Your task to perform on an android device: turn on improve location accuracy Image 0: 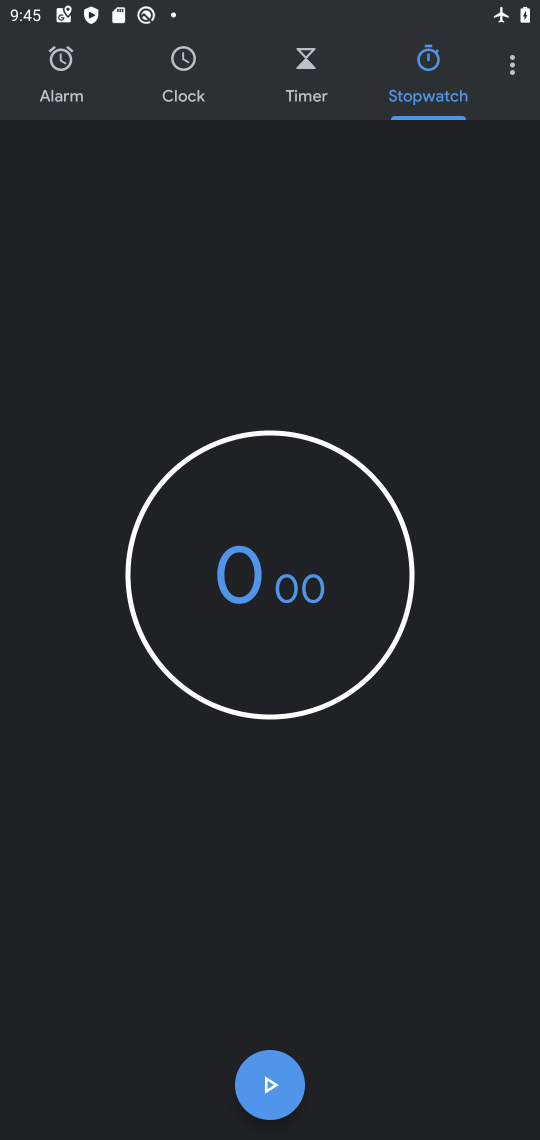
Step 0: click (508, 70)
Your task to perform on an android device: turn on improve location accuracy Image 1: 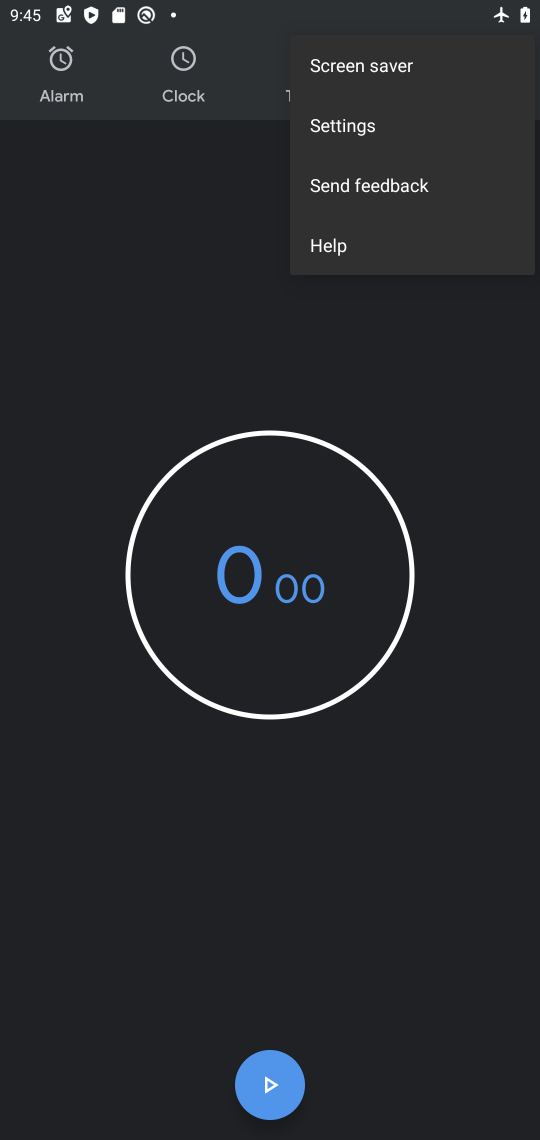
Step 1: press home button
Your task to perform on an android device: turn on improve location accuracy Image 2: 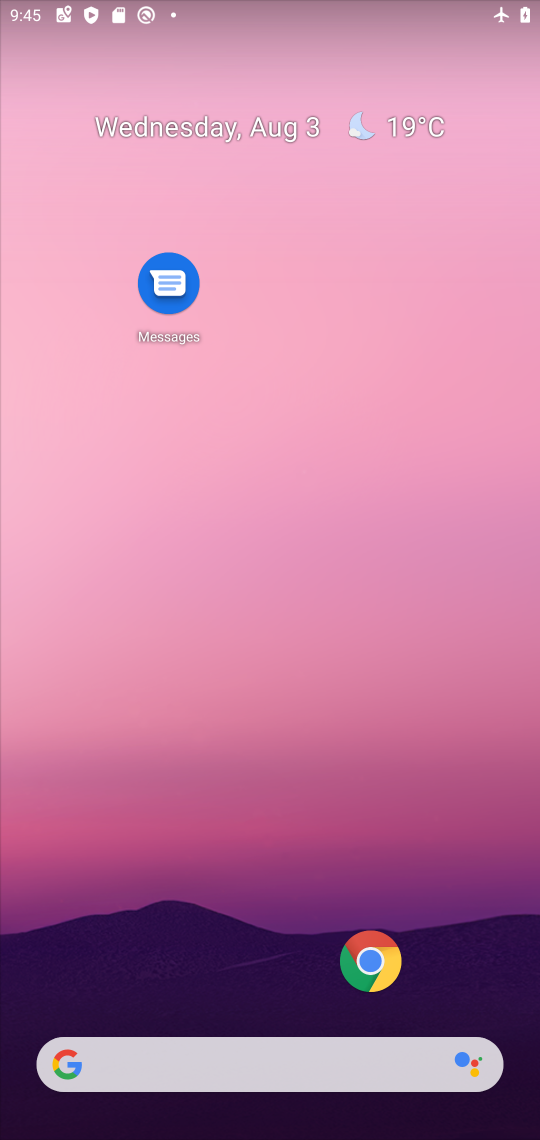
Step 2: drag from (337, 1019) to (207, 81)
Your task to perform on an android device: turn on improve location accuracy Image 3: 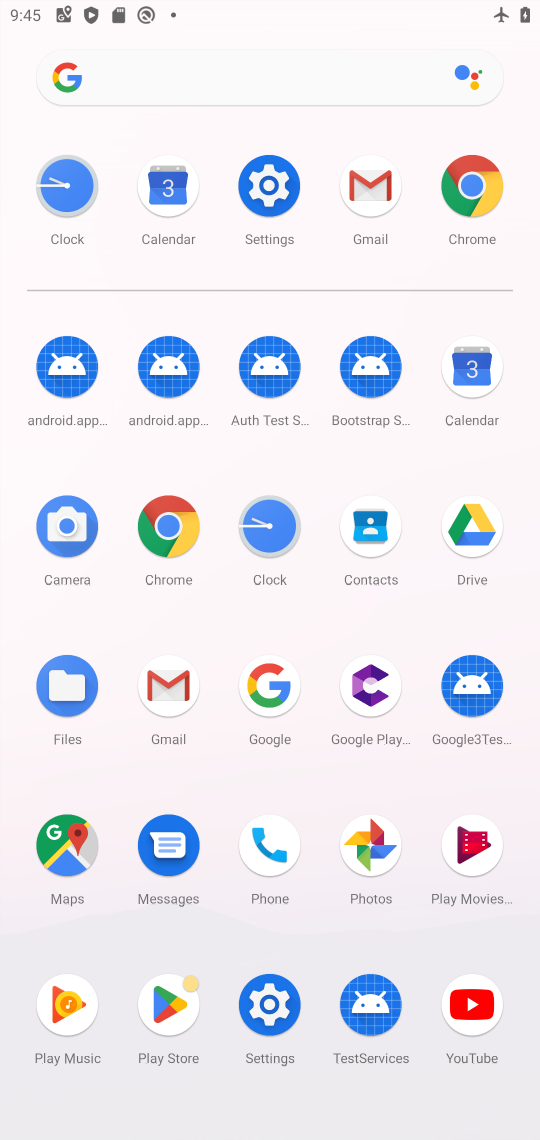
Step 3: click (271, 1023)
Your task to perform on an android device: turn on improve location accuracy Image 4: 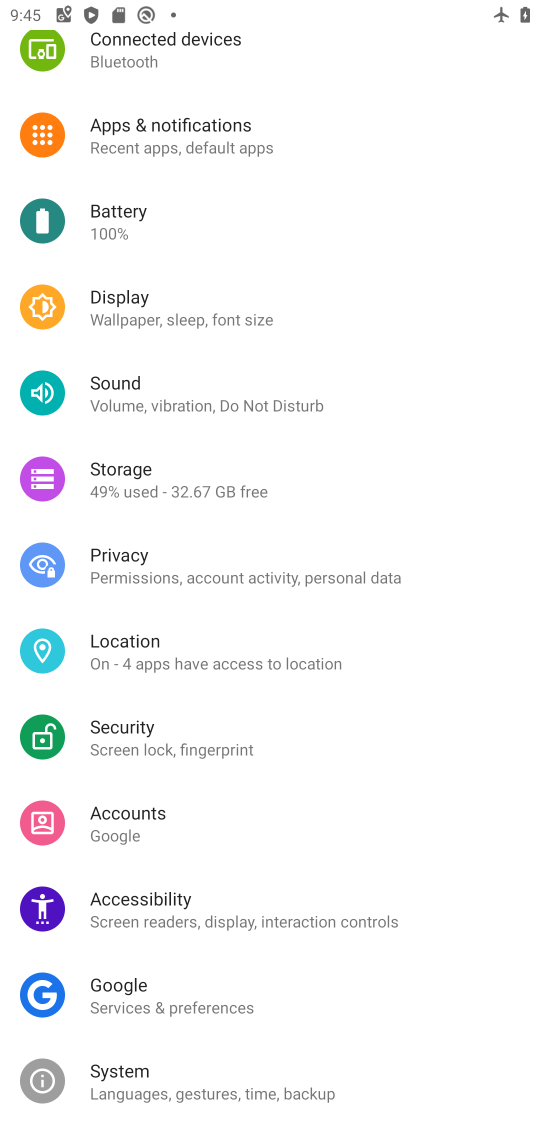
Step 4: click (103, 640)
Your task to perform on an android device: turn on improve location accuracy Image 5: 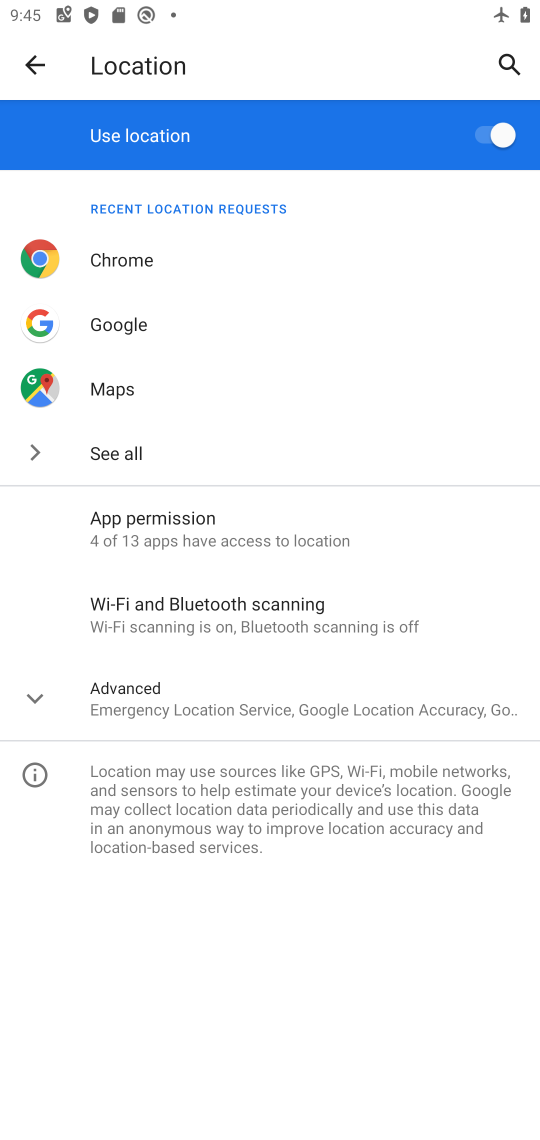
Step 5: click (132, 704)
Your task to perform on an android device: turn on improve location accuracy Image 6: 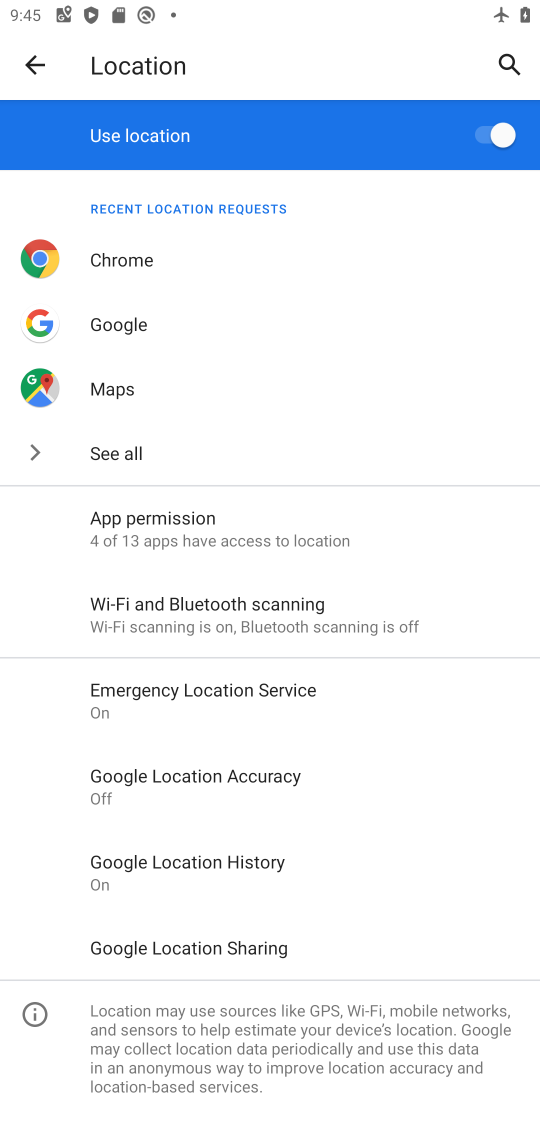
Step 6: click (178, 782)
Your task to perform on an android device: turn on improve location accuracy Image 7: 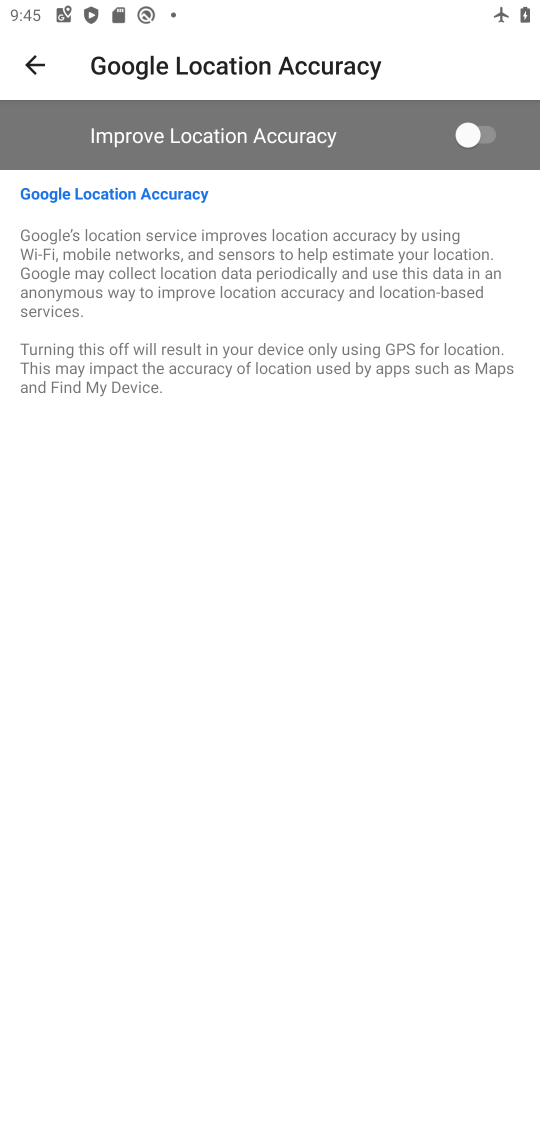
Step 7: click (466, 134)
Your task to perform on an android device: turn on improve location accuracy Image 8: 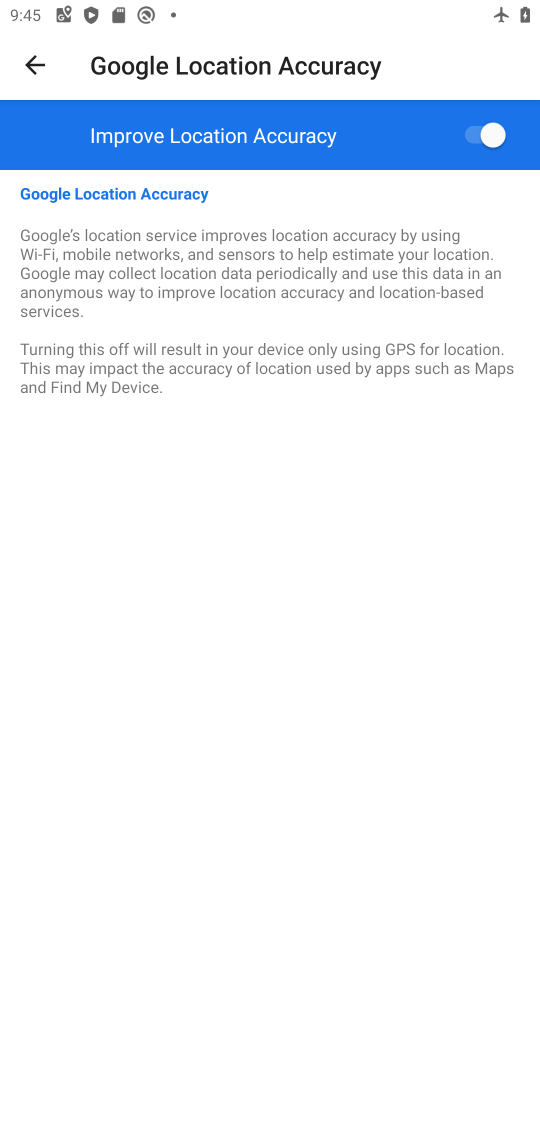
Step 8: task complete